Your task to perform on an android device: Open location settings Image 0: 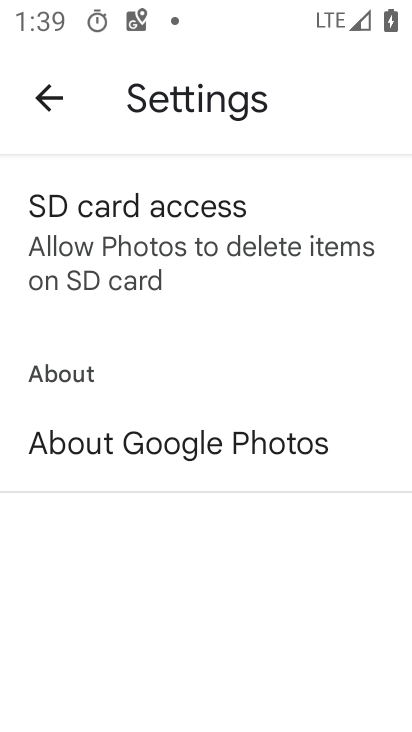
Step 0: press home button
Your task to perform on an android device: Open location settings Image 1: 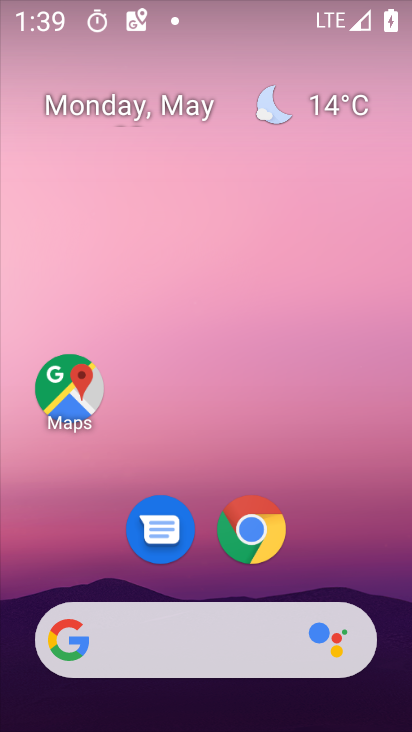
Step 1: drag from (361, 561) to (353, 158)
Your task to perform on an android device: Open location settings Image 2: 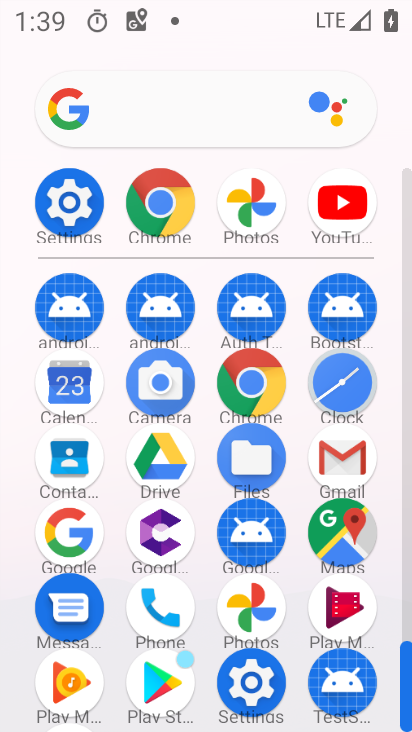
Step 2: drag from (382, 618) to (389, 372)
Your task to perform on an android device: Open location settings Image 3: 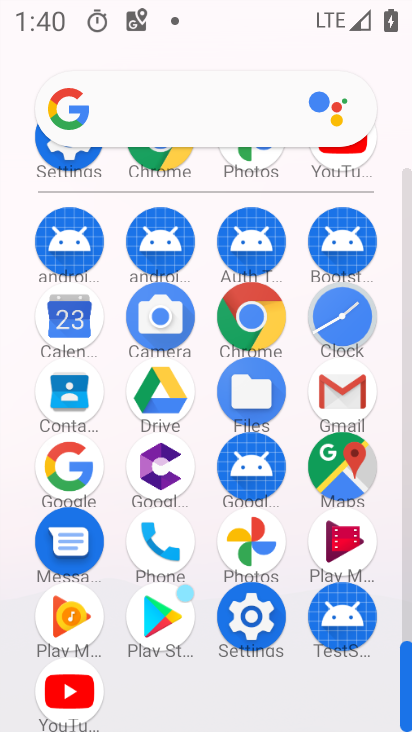
Step 3: click (262, 625)
Your task to perform on an android device: Open location settings Image 4: 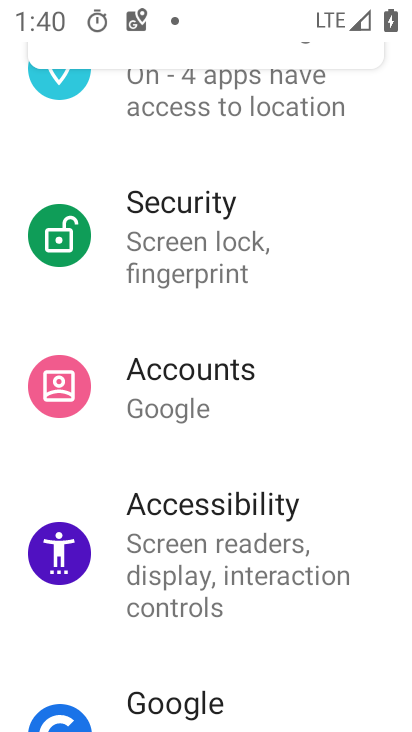
Step 4: drag from (363, 266) to (345, 465)
Your task to perform on an android device: Open location settings Image 5: 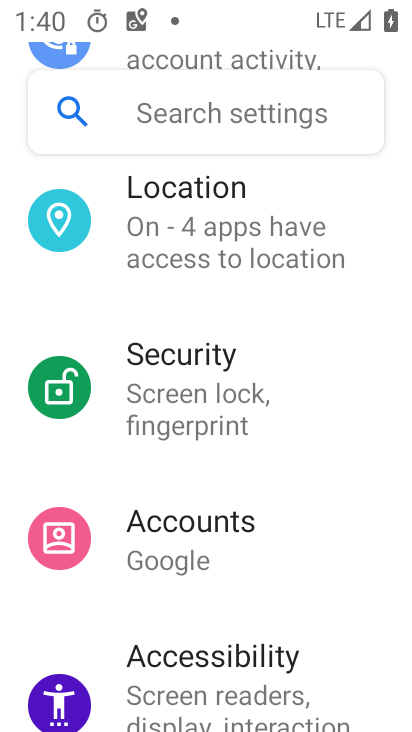
Step 5: drag from (371, 208) to (350, 435)
Your task to perform on an android device: Open location settings Image 6: 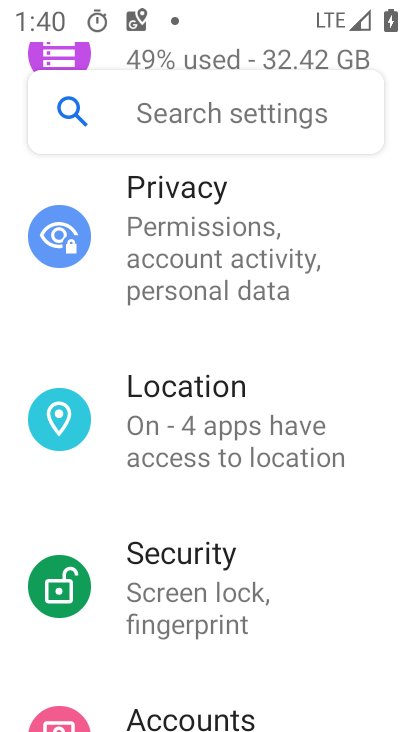
Step 6: drag from (370, 220) to (355, 411)
Your task to perform on an android device: Open location settings Image 7: 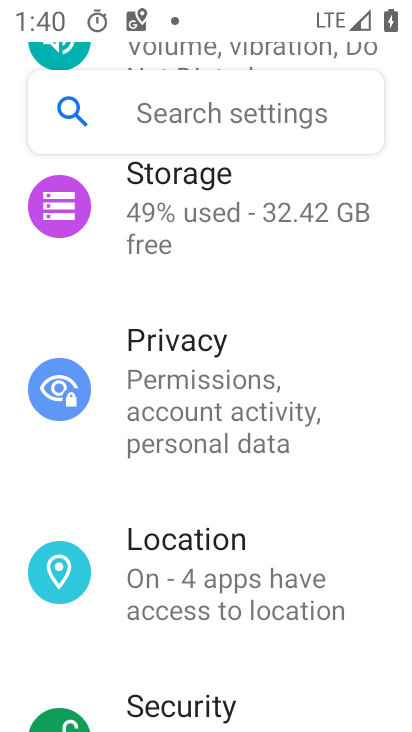
Step 7: drag from (381, 184) to (351, 419)
Your task to perform on an android device: Open location settings Image 8: 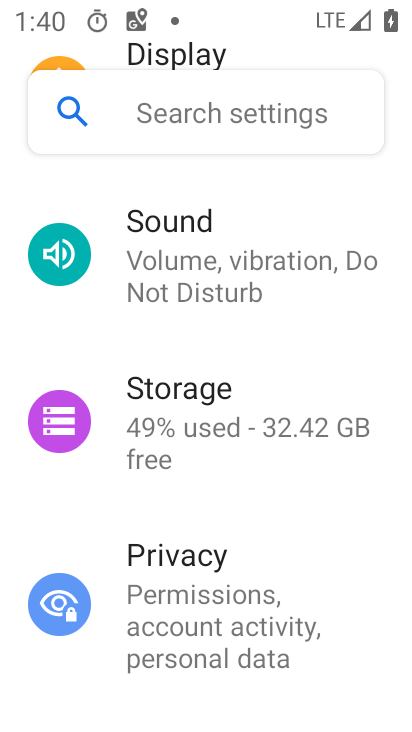
Step 8: drag from (386, 191) to (376, 398)
Your task to perform on an android device: Open location settings Image 9: 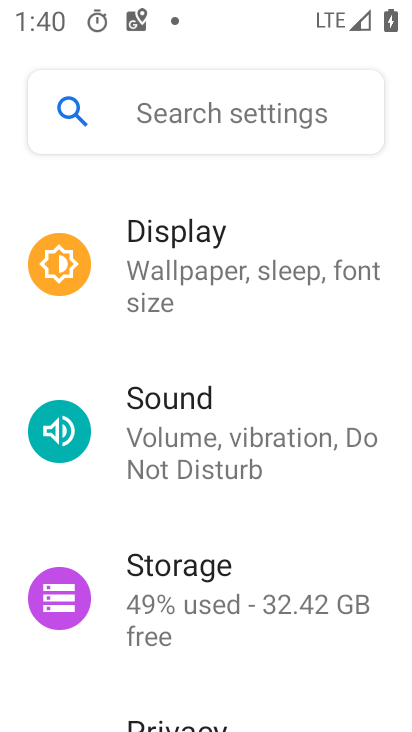
Step 9: drag from (394, 192) to (373, 357)
Your task to perform on an android device: Open location settings Image 10: 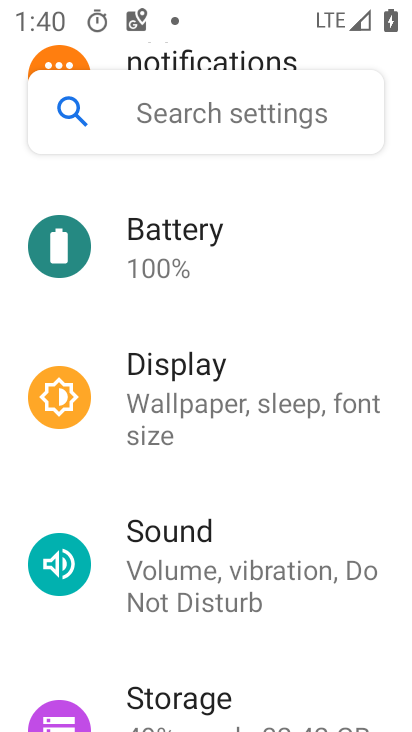
Step 10: drag from (372, 260) to (354, 449)
Your task to perform on an android device: Open location settings Image 11: 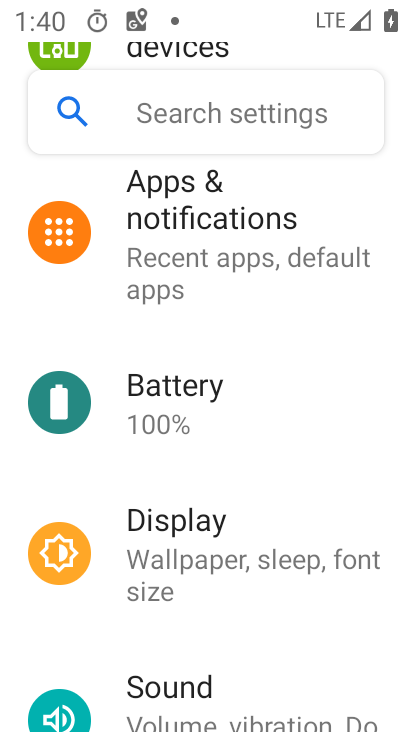
Step 11: drag from (369, 217) to (350, 377)
Your task to perform on an android device: Open location settings Image 12: 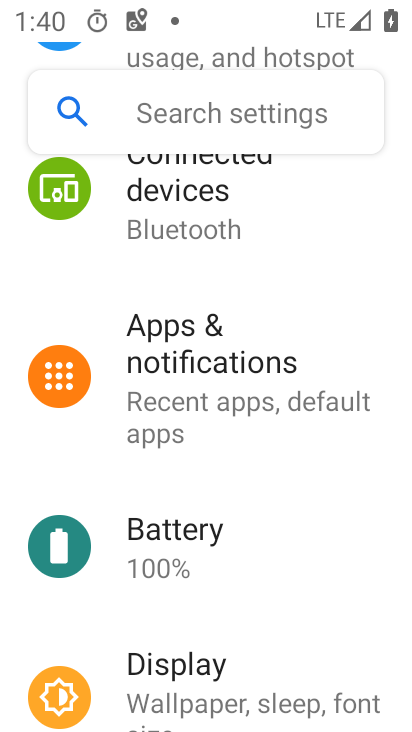
Step 12: drag from (342, 179) to (329, 387)
Your task to perform on an android device: Open location settings Image 13: 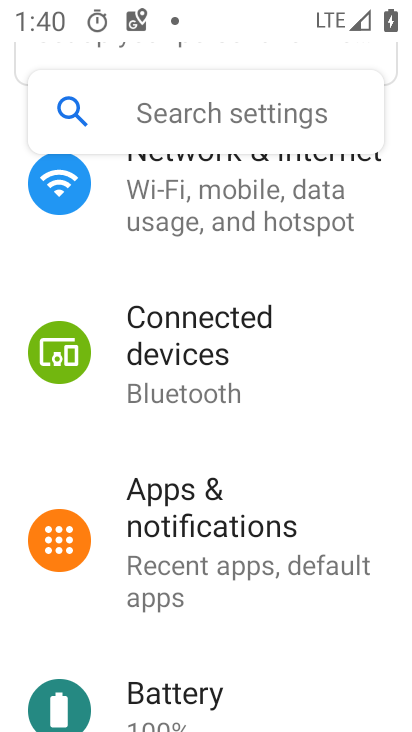
Step 13: drag from (369, 196) to (373, 460)
Your task to perform on an android device: Open location settings Image 14: 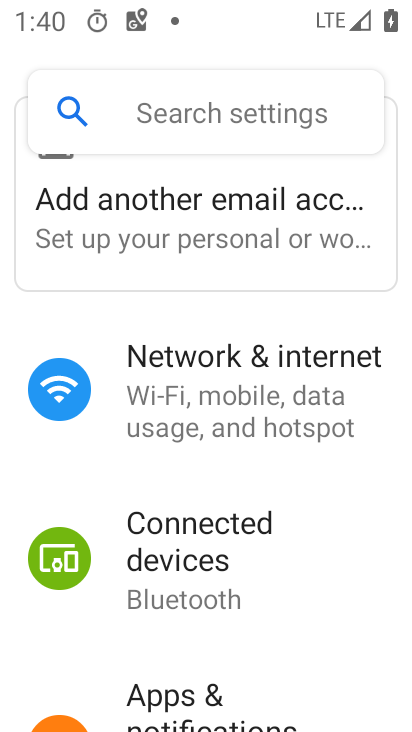
Step 14: drag from (392, 185) to (362, 482)
Your task to perform on an android device: Open location settings Image 15: 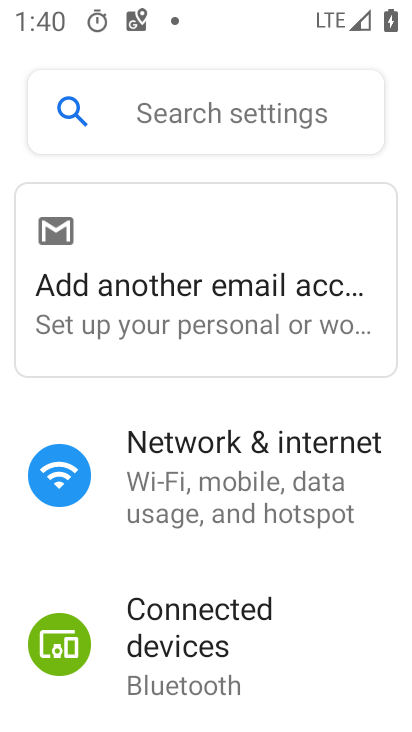
Step 15: drag from (351, 610) to (355, 485)
Your task to perform on an android device: Open location settings Image 16: 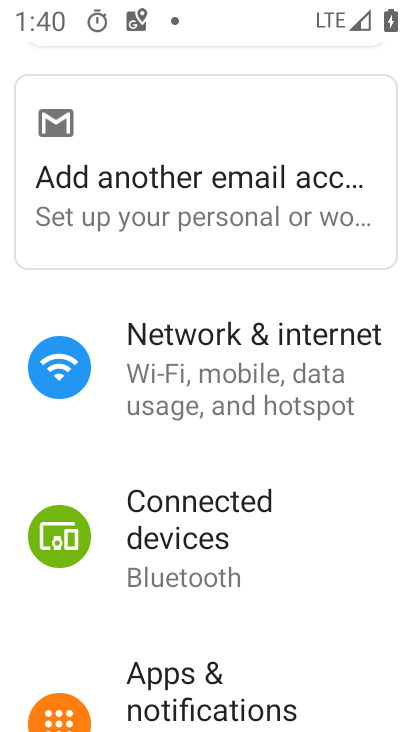
Step 16: drag from (339, 603) to (335, 421)
Your task to perform on an android device: Open location settings Image 17: 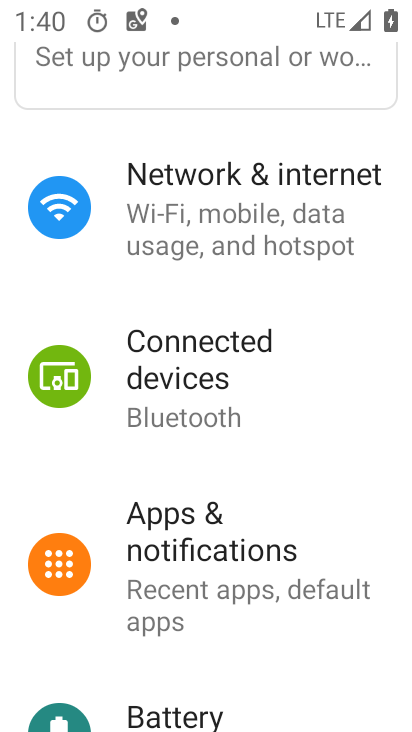
Step 17: drag from (354, 660) to (351, 488)
Your task to perform on an android device: Open location settings Image 18: 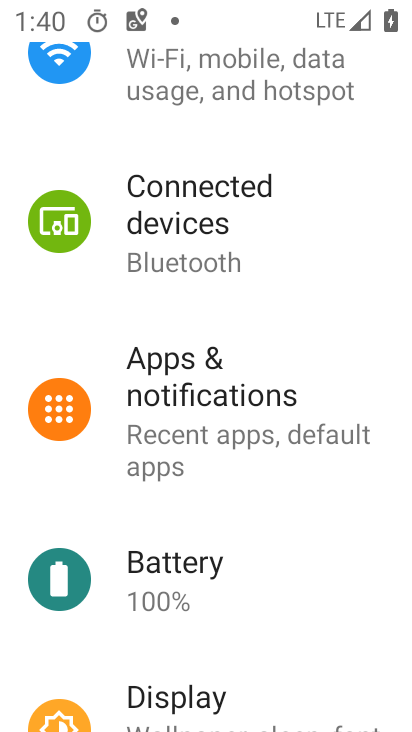
Step 18: drag from (333, 625) to (339, 426)
Your task to perform on an android device: Open location settings Image 19: 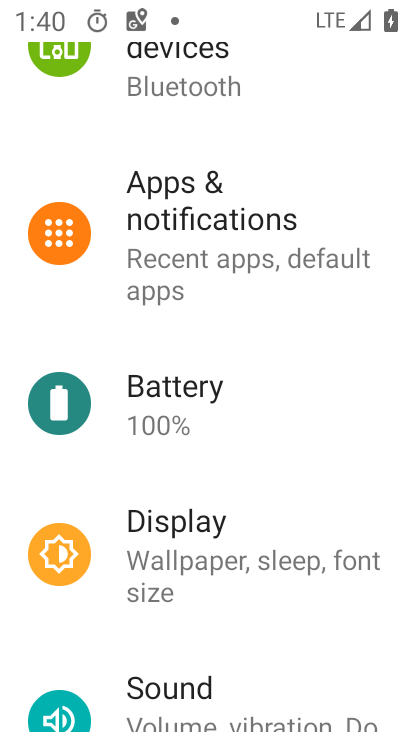
Step 19: drag from (333, 637) to (326, 466)
Your task to perform on an android device: Open location settings Image 20: 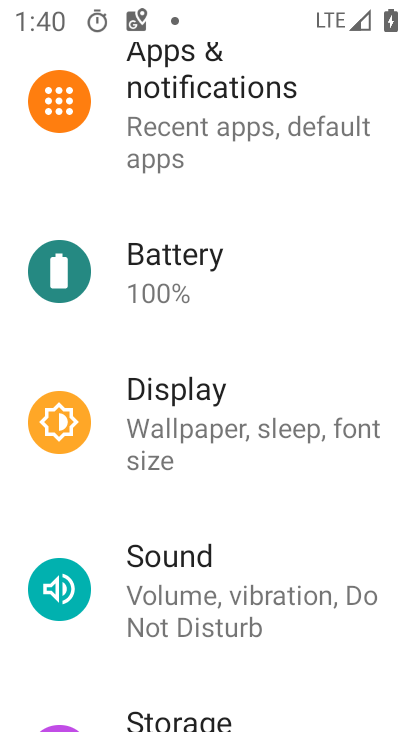
Step 20: drag from (306, 649) to (323, 459)
Your task to perform on an android device: Open location settings Image 21: 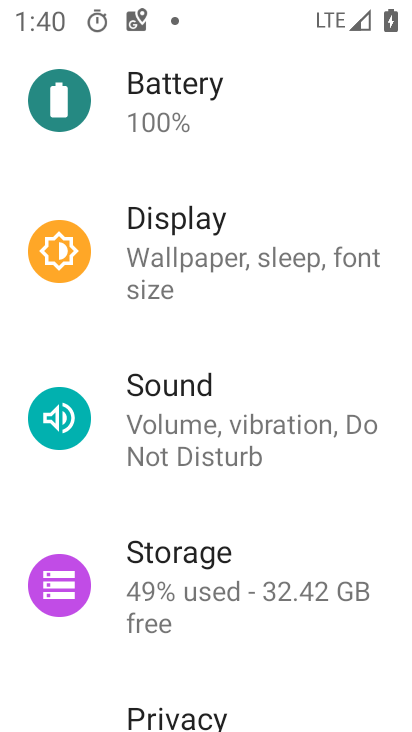
Step 21: drag from (329, 628) to (337, 459)
Your task to perform on an android device: Open location settings Image 22: 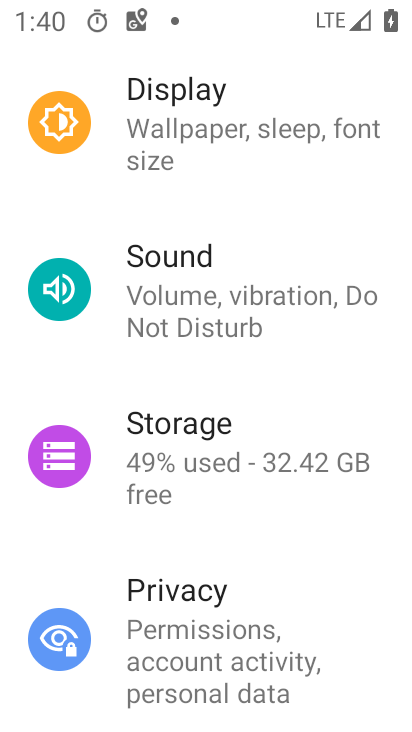
Step 22: drag from (323, 682) to (337, 528)
Your task to perform on an android device: Open location settings Image 23: 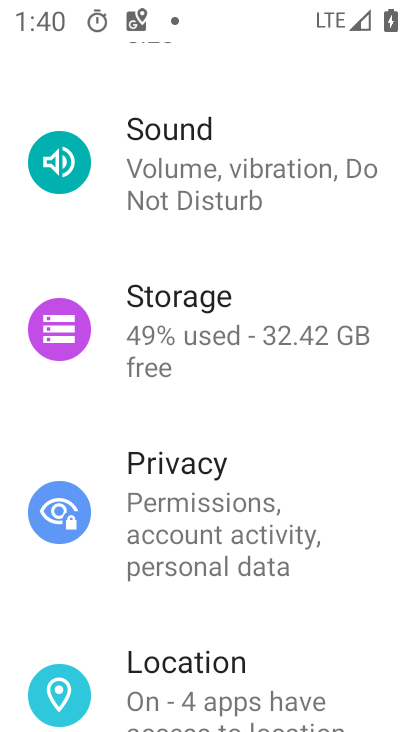
Step 23: drag from (337, 674) to (349, 541)
Your task to perform on an android device: Open location settings Image 24: 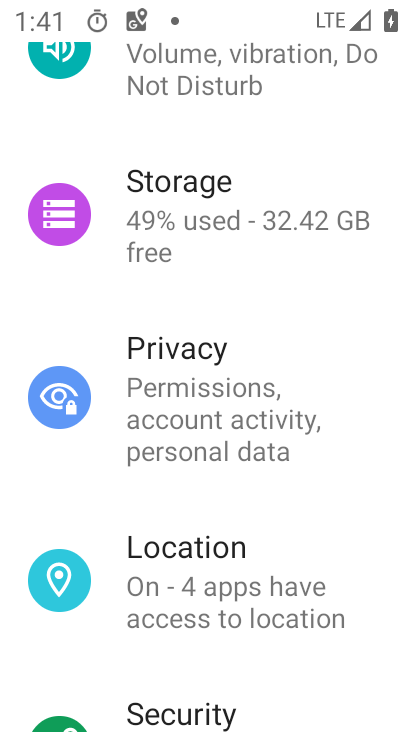
Step 24: click (277, 607)
Your task to perform on an android device: Open location settings Image 25: 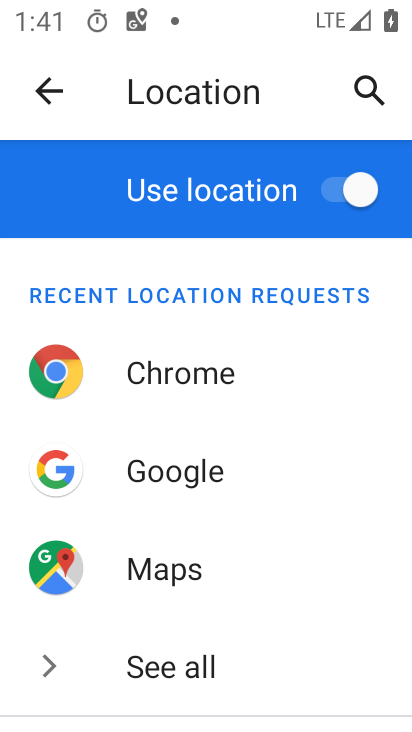
Step 25: task complete